Your task to perform on an android device: Open Chrome and go to settings Image 0: 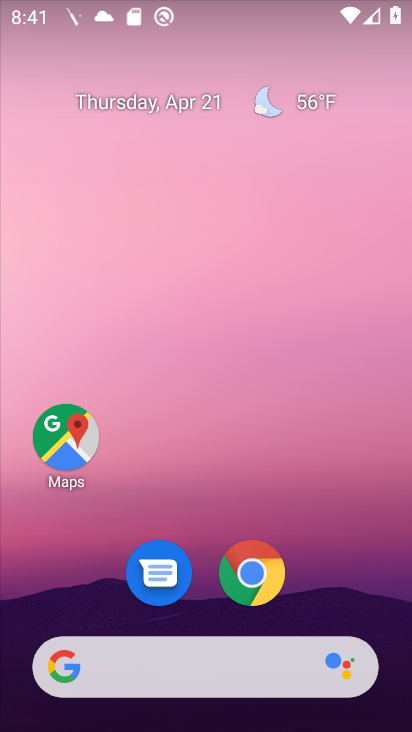
Step 0: click (253, 572)
Your task to perform on an android device: Open Chrome and go to settings Image 1: 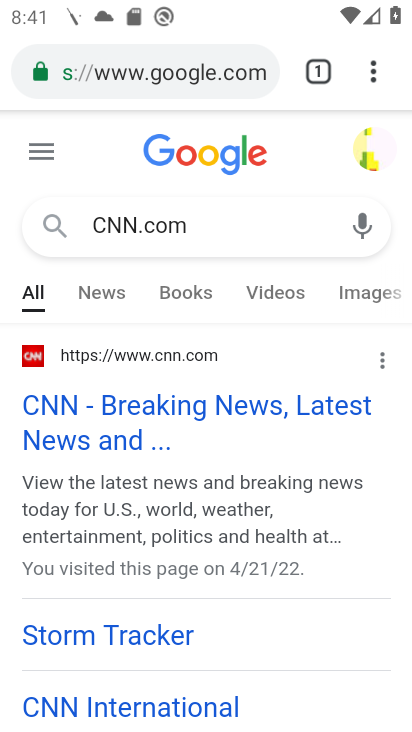
Step 1: click (378, 72)
Your task to perform on an android device: Open Chrome and go to settings Image 2: 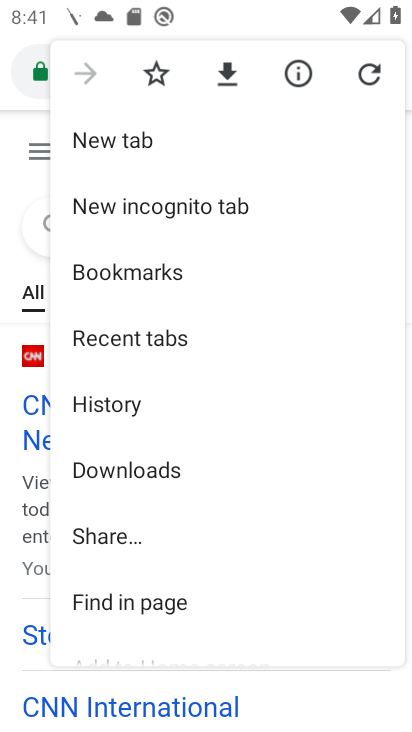
Step 2: drag from (205, 463) to (268, 340)
Your task to perform on an android device: Open Chrome and go to settings Image 3: 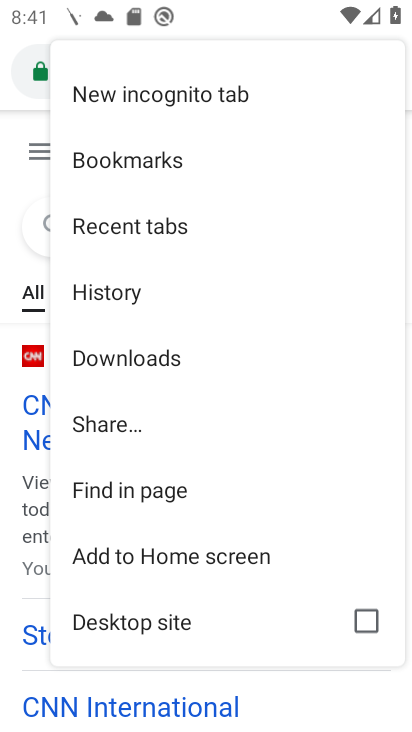
Step 3: drag from (230, 439) to (264, 341)
Your task to perform on an android device: Open Chrome and go to settings Image 4: 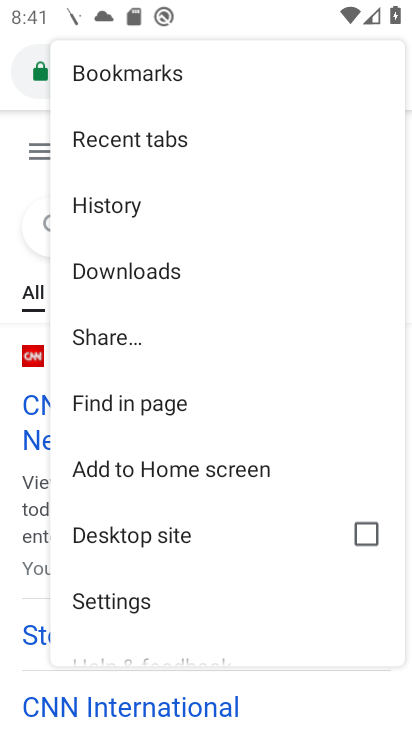
Step 4: drag from (236, 510) to (285, 410)
Your task to perform on an android device: Open Chrome and go to settings Image 5: 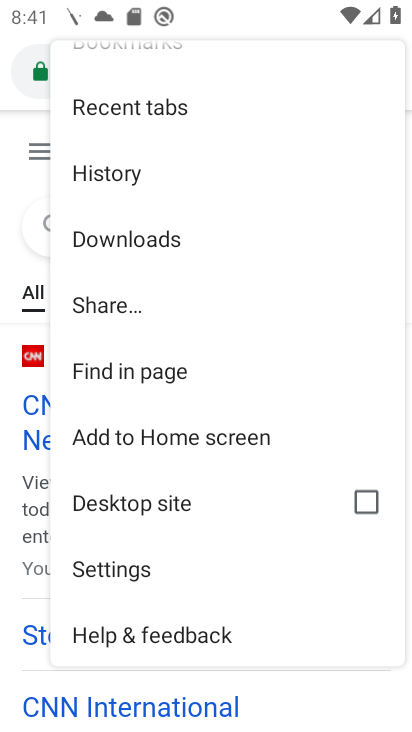
Step 5: click (138, 569)
Your task to perform on an android device: Open Chrome and go to settings Image 6: 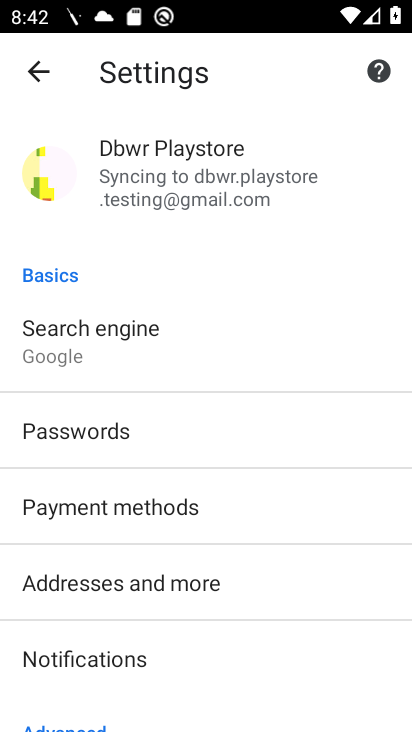
Step 6: task complete